Your task to perform on an android device: clear history in the chrome app Image 0: 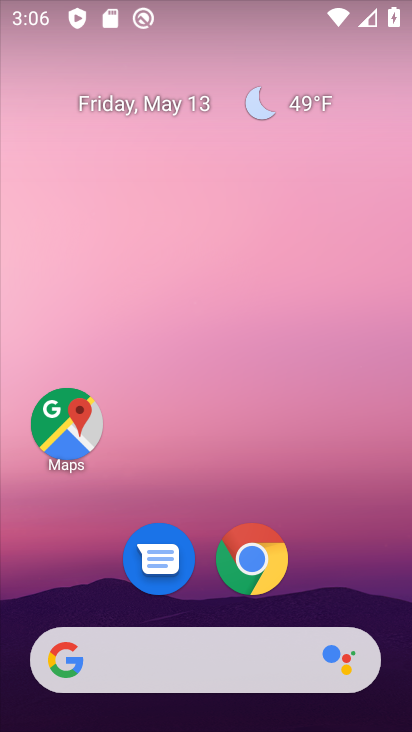
Step 0: click (245, 551)
Your task to perform on an android device: clear history in the chrome app Image 1: 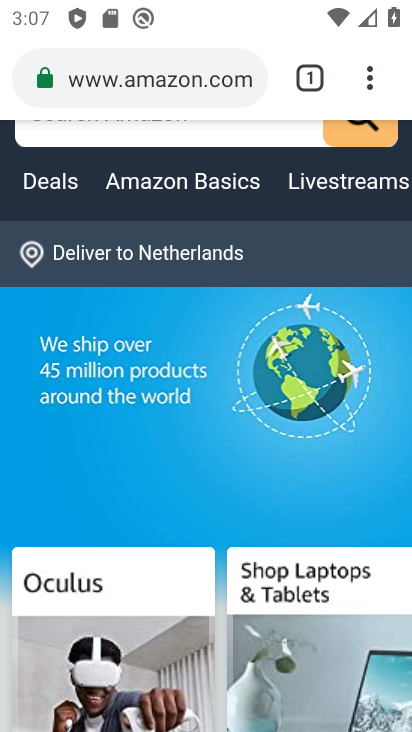
Step 1: click (366, 83)
Your task to perform on an android device: clear history in the chrome app Image 2: 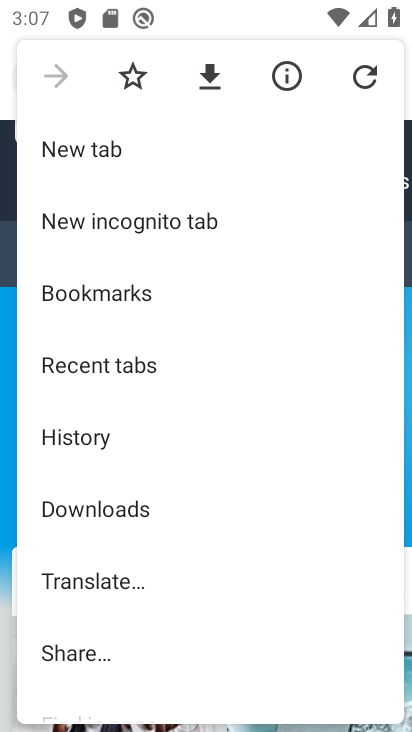
Step 2: click (62, 439)
Your task to perform on an android device: clear history in the chrome app Image 3: 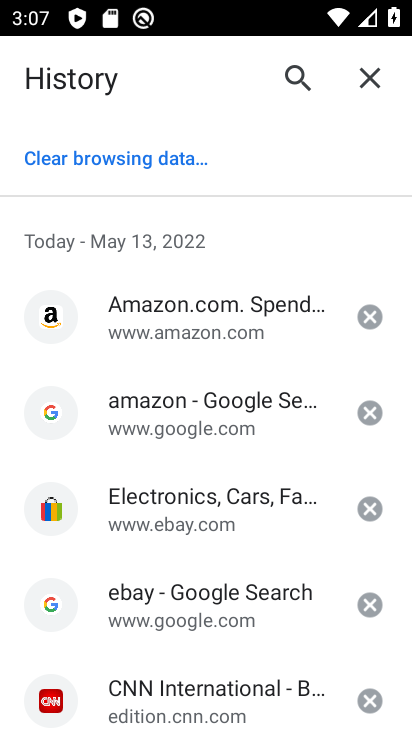
Step 3: click (101, 156)
Your task to perform on an android device: clear history in the chrome app Image 4: 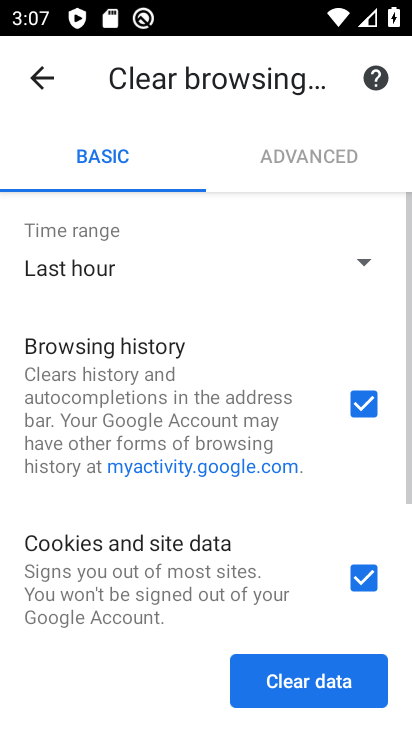
Step 4: click (367, 584)
Your task to perform on an android device: clear history in the chrome app Image 5: 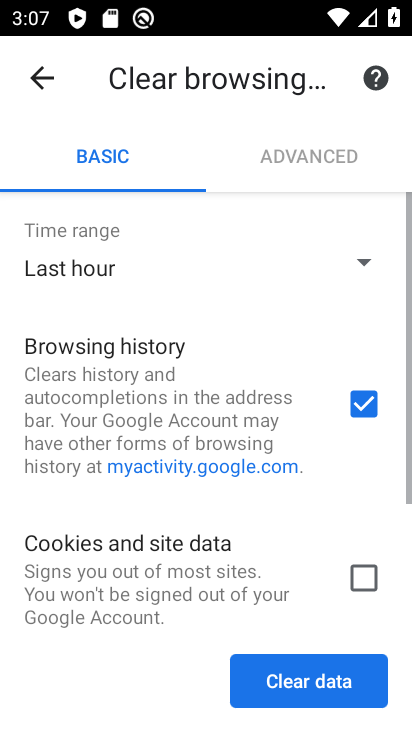
Step 5: drag from (298, 609) to (283, 212)
Your task to perform on an android device: clear history in the chrome app Image 6: 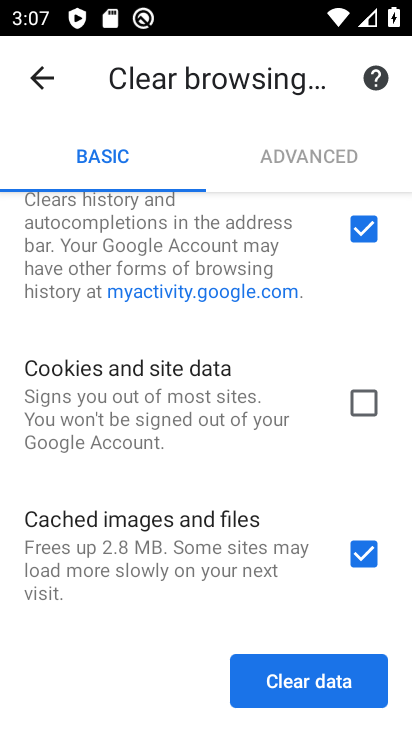
Step 6: click (354, 550)
Your task to perform on an android device: clear history in the chrome app Image 7: 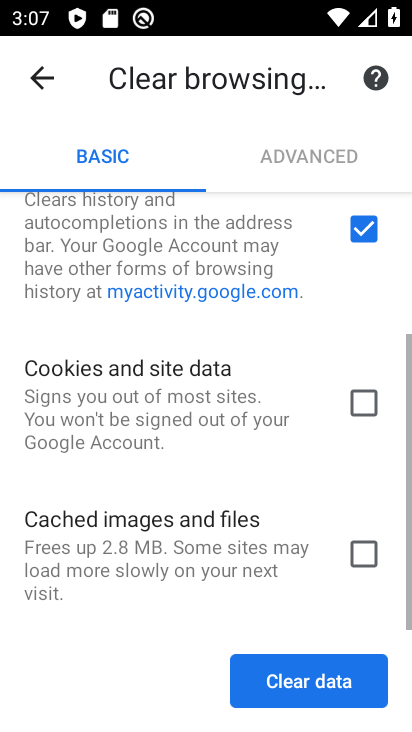
Step 7: click (308, 694)
Your task to perform on an android device: clear history in the chrome app Image 8: 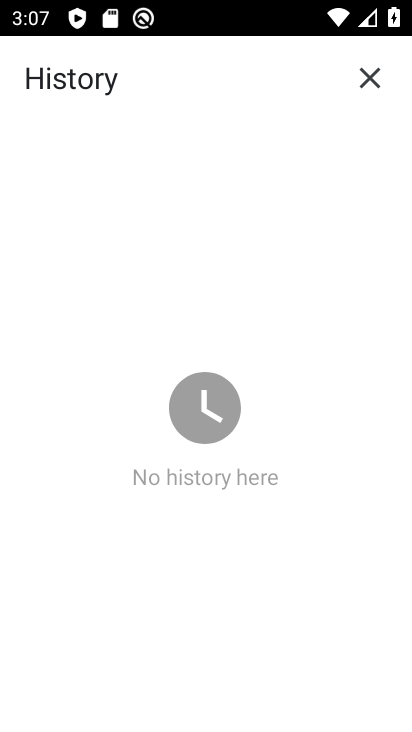
Step 8: task complete